Your task to perform on an android device: Open the map Image 0: 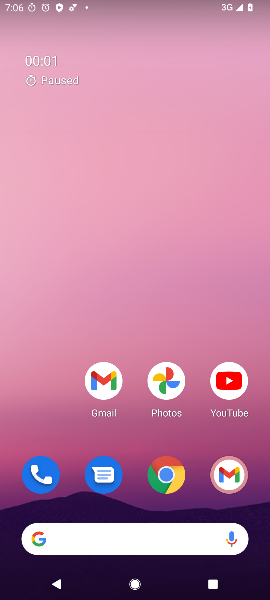
Step 0: drag from (135, 491) to (107, 22)
Your task to perform on an android device: Open the map Image 1: 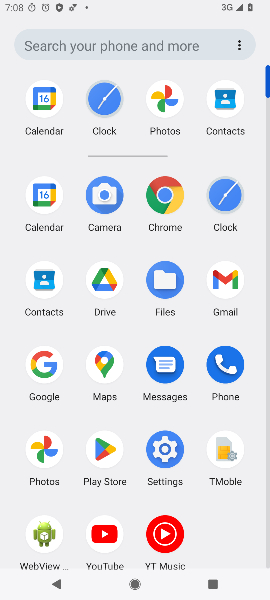
Step 1: click (105, 363)
Your task to perform on an android device: Open the map Image 2: 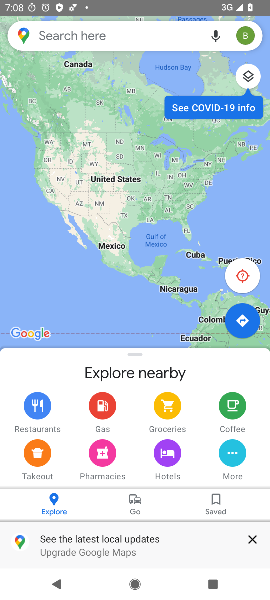
Step 2: task complete